Your task to perform on an android device: Go to Reddit.com Image 0: 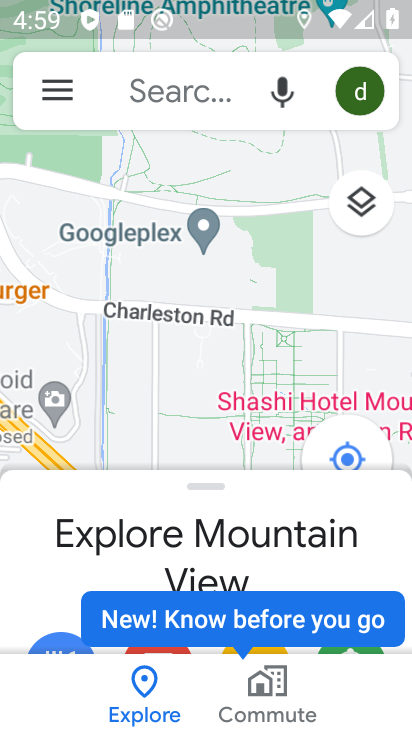
Step 0: press back button
Your task to perform on an android device: Go to Reddit.com Image 1: 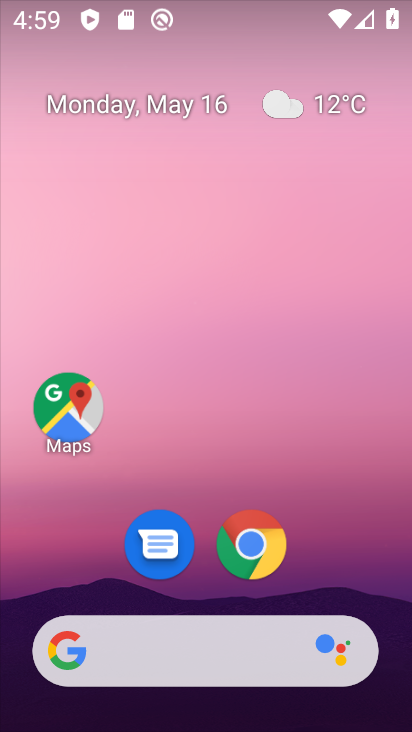
Step 1: click (250, 545)
Your task to perform on an android device: Go to Reddit.com Image 2: 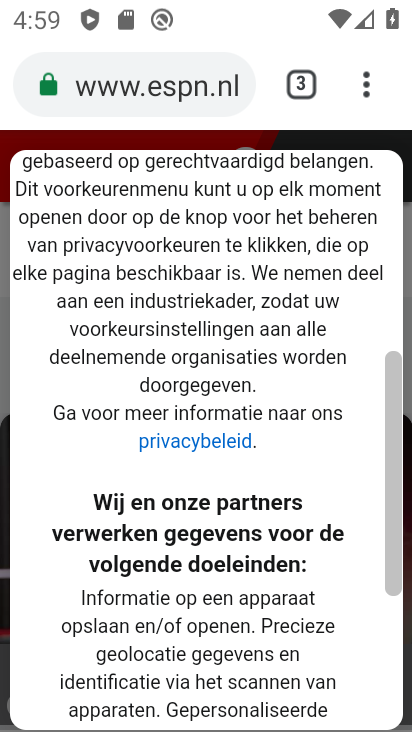
Step 2: click (220, 90)
Your task to perform on an android device: Go to Reddit.com Image 3: 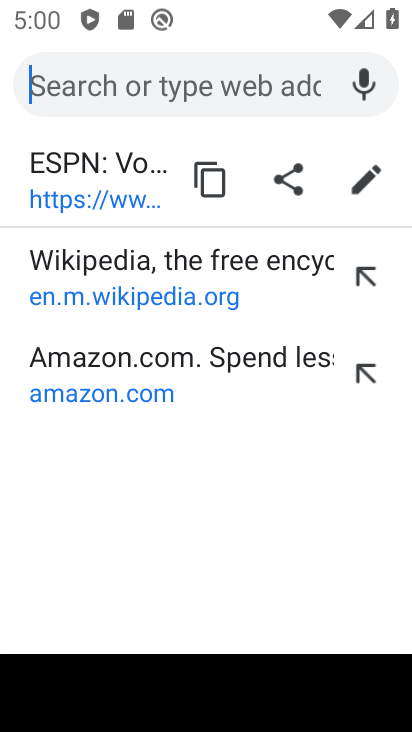
Step 3: type "Reddit.com"
Your task to perform on an android device: Go to Reddit.com Image 4: 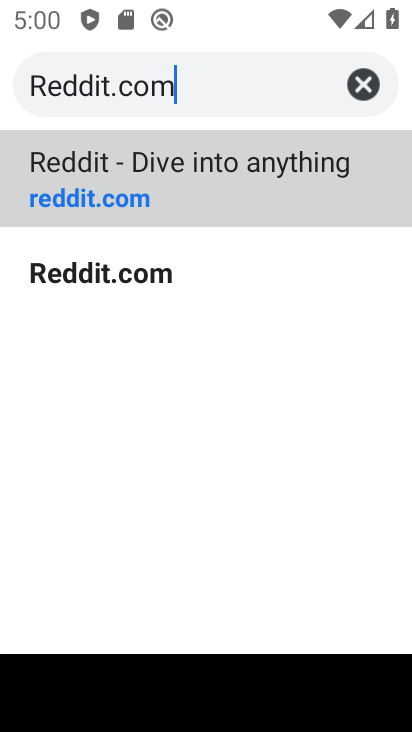
Step 4: click (79, 265)
Your task to perform on an android device: Go to Reddit.com Image 5: 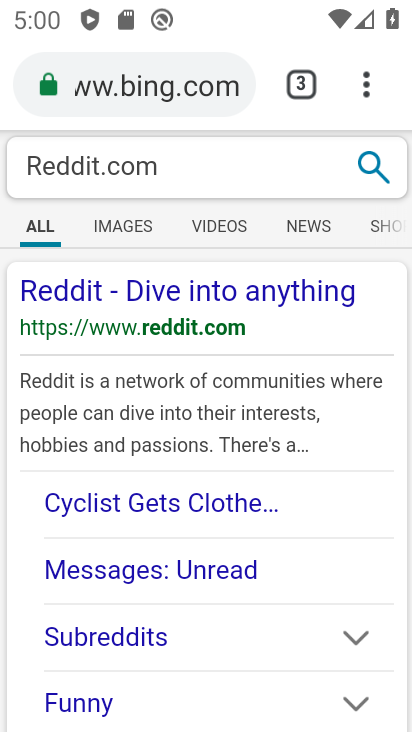
Step 5: click (110, 334)
Your task to perform on an android device: Go to Reddit.com Image 6: 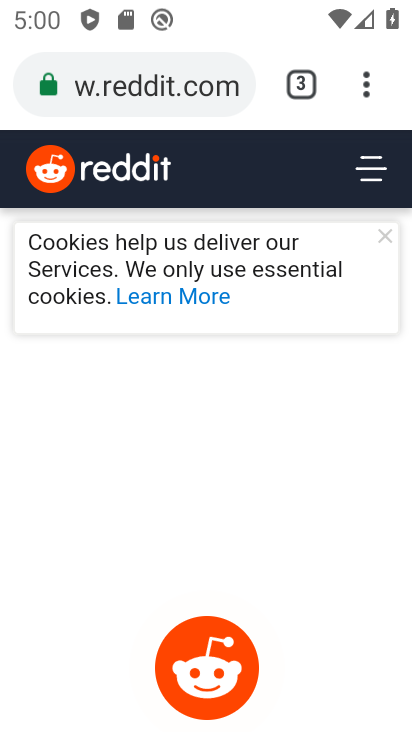
Step 6: task complete